Your task to perform on an android device: Go to battery settings Image 0: 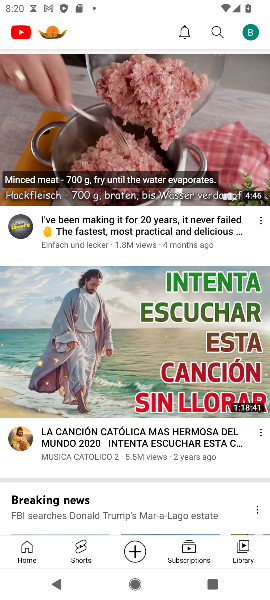
Step 0: press home button
Your task to perform on an android device: Go to battery settings Image 1: 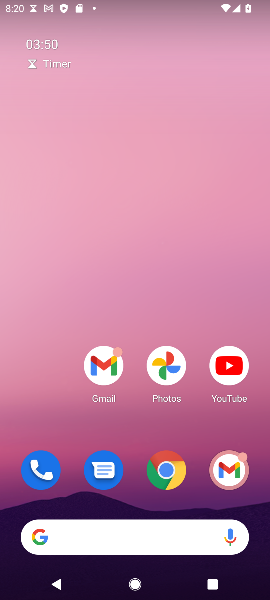
Step 1: drag from (143, 385) to (164, 15)
Your task to perform on an android device: Go to battery settings Image 2: 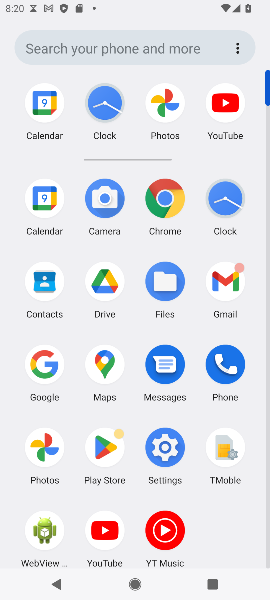
Step 2: click (167, 466)
Your task to perform on an android device: Go to battery settings Image 3: 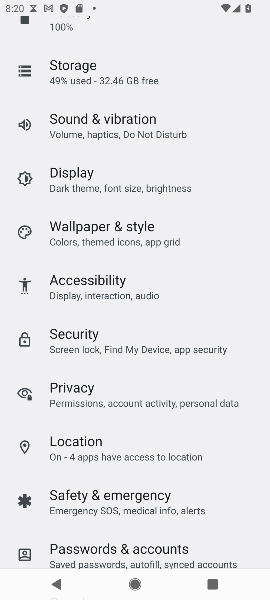
Step 3: drag from (118, 175) to (143, 570)
Your task to perform on an android device: Go to battery settings Image 4: 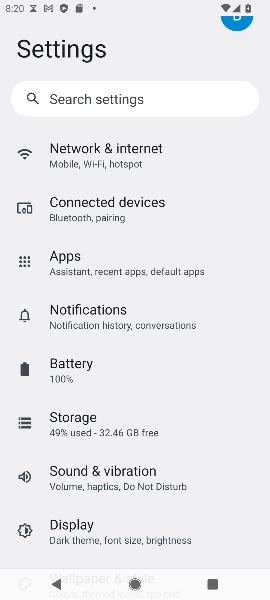
Step 4: click (74, 376)
Your task to perform on an android device: Go to battery settings Image 5: 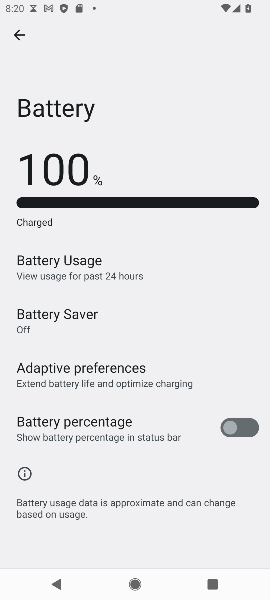
Step 5: task complete